Your task to perform on an android device: Open Maps and search for coffee Image 0: 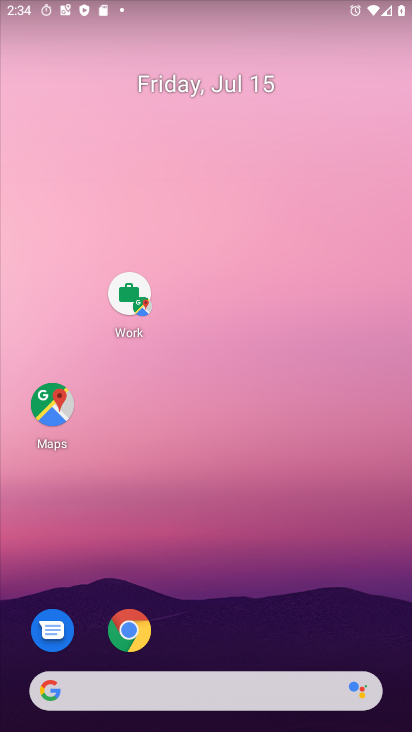
Step 0: click (67, 412)
Your task to perform on an android device: Open Maps and search for coffee Image 1: 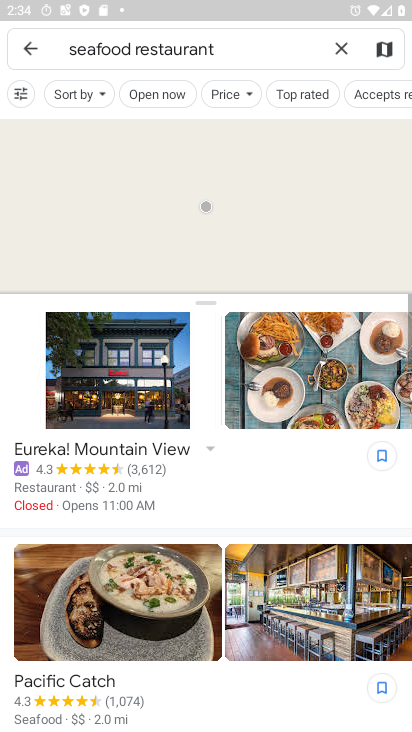
Step 1: click (339, 52)
Your task to perform on an android device: Open Maps and search for coffee Image 2: 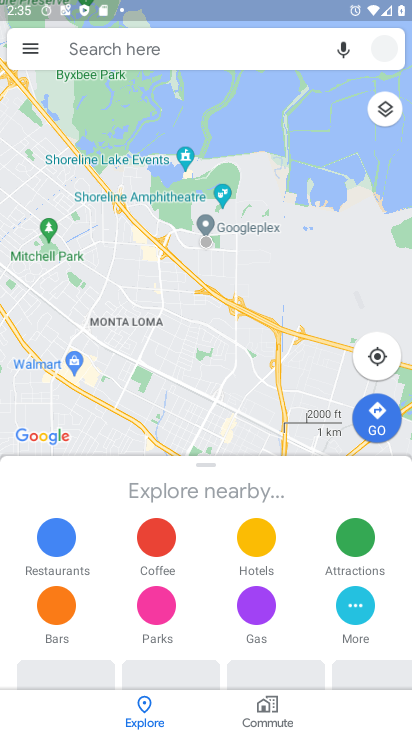
Step 2: click (160, 55)
Your task to perform on an android device: Open Maps and search for coffee Image 3: 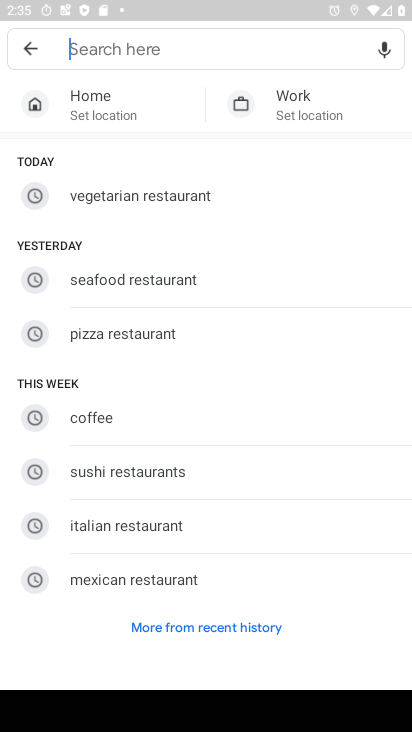
Step 3: type "coffee"
Your task to perform on an android device: Open Maps and search for coffee Image 4: 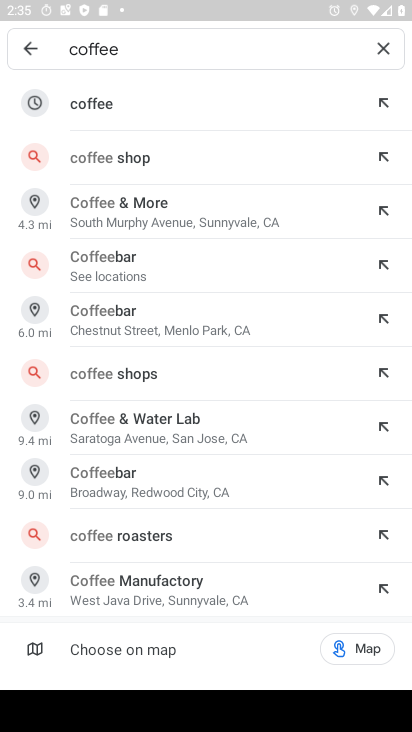
Step 4: click (132, 120)
Your task to perform on an android device: Open Maps and search for coffee Image 5: 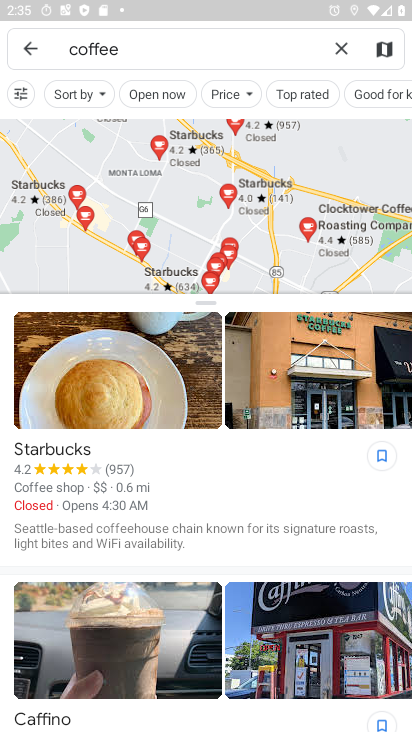
Step 5: task complete